Your task to perform on an android device: Open calendar and show me the second week of next month Image 0: 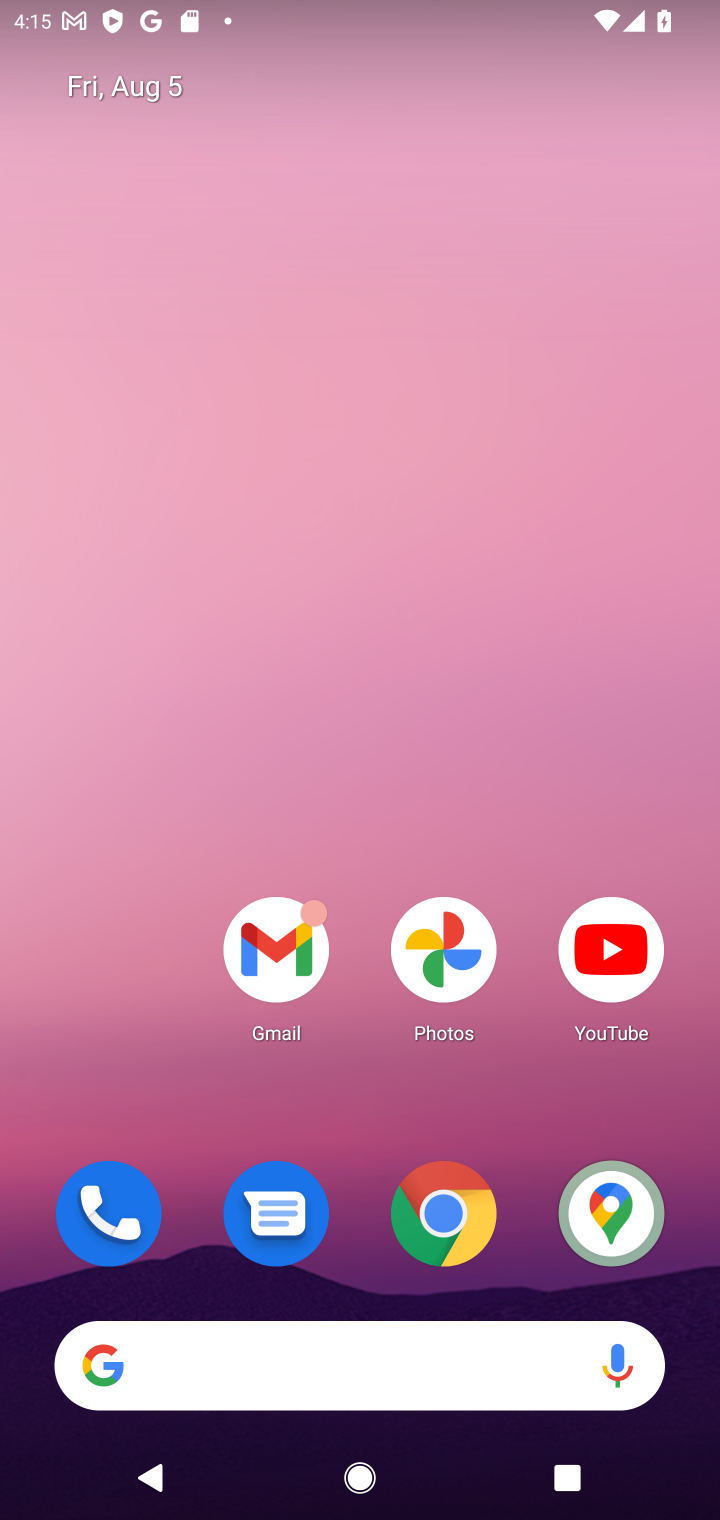
Step 0: drag from (353, 1292) to (417, 194)
Your task to perform on an android device: Open calendar and show me the second week of next month Image 1: 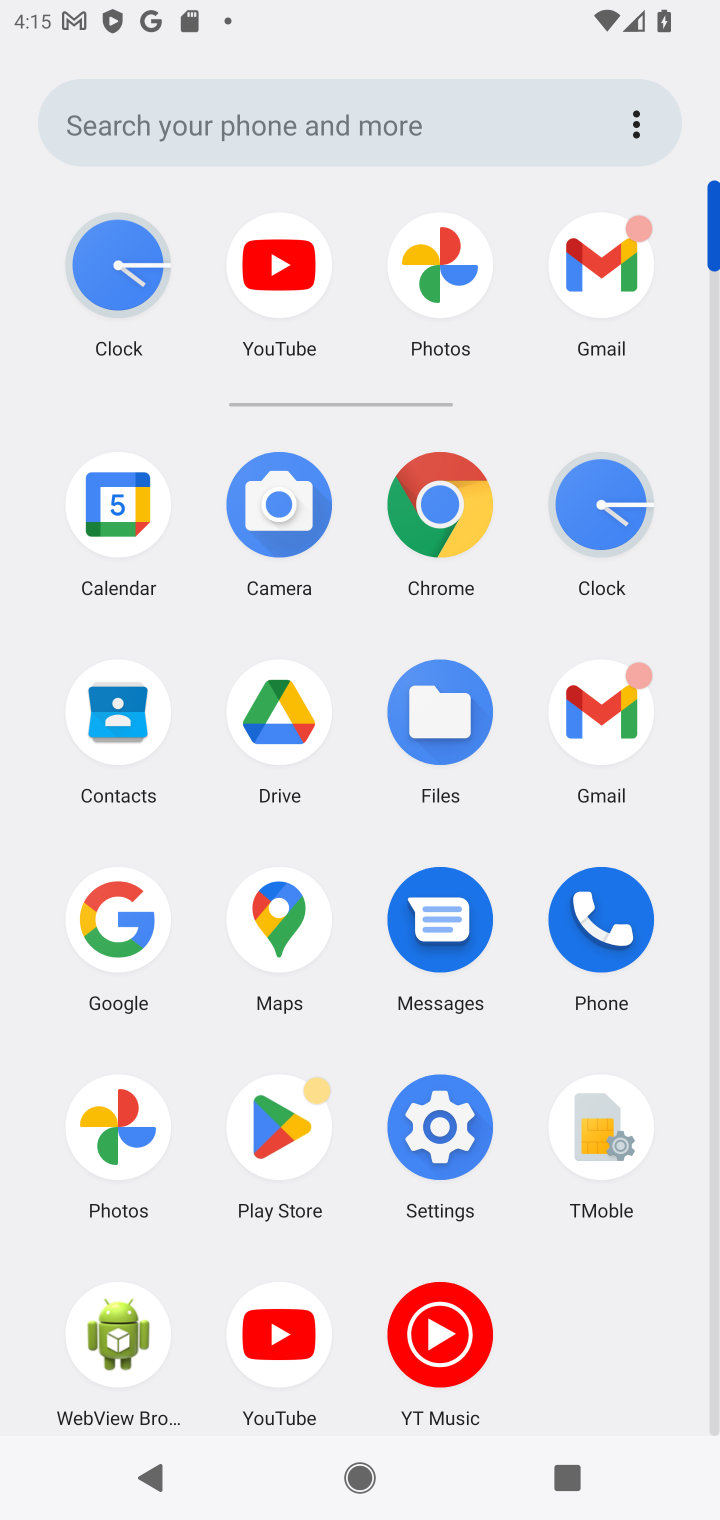
Step 1: click (102, 512)
Your task to perform on an android device: Open calendar and show me the second week of next month Image 2: 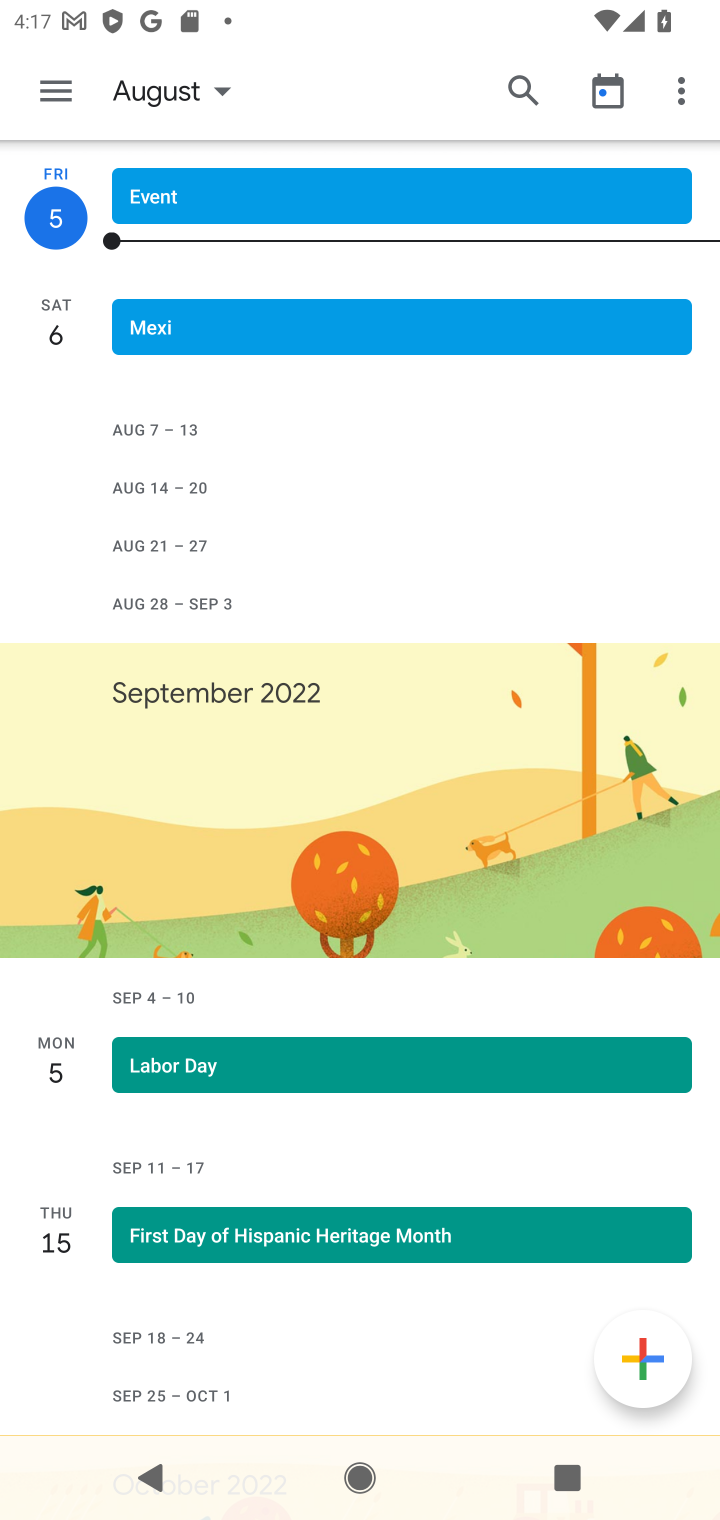
Step 2: task complete